Your task to perform on an android device: turn on priority inbox in the gmail app Image 0: 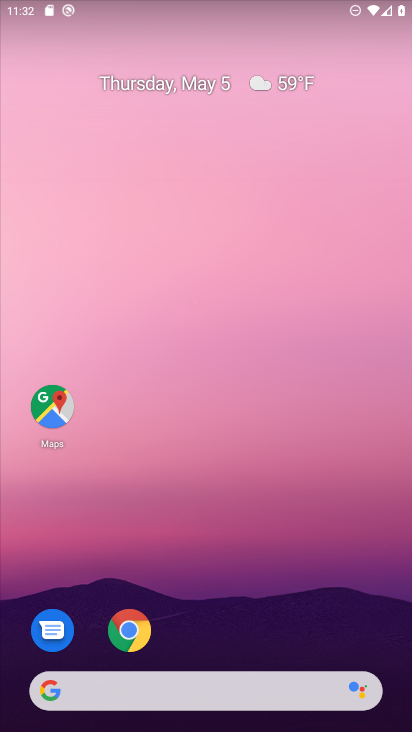
Step 0: click (274, 81)
Your task to perform on an android device: turn on priority inbox in the gmail app Image 1: 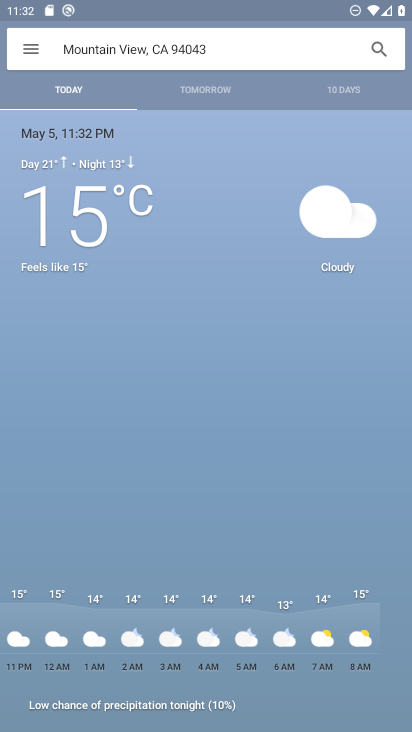
Step 1: task complete